Your task to perform on an android device: open the mobile data screen to see how much data has been used Image 0: 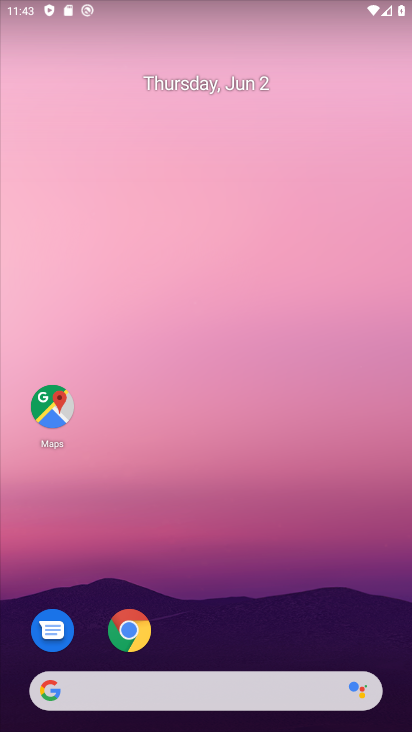
Step 0: drag from (147, 678) to (278, 84)
Your task to perform on an android device: open the mobile data screen to see how much data has been used Image 1: 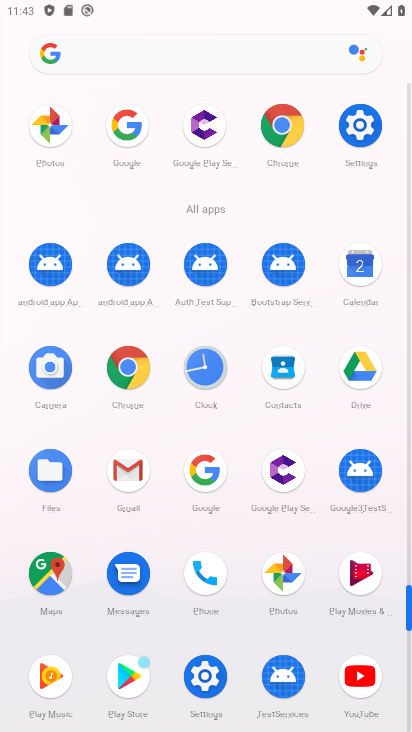
Step 1: drag from (216, 590) to (264, 382)
Your task to perform on an android device: open the mobile data screen to see how much data has been used Image 2: 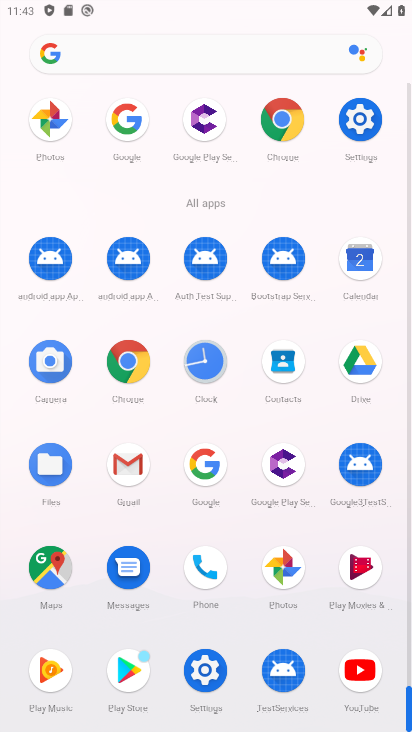
Step 2: click (201, 684)
Your task to perform on an android device: open the mobile data screen to see how much data has been used Image 3: 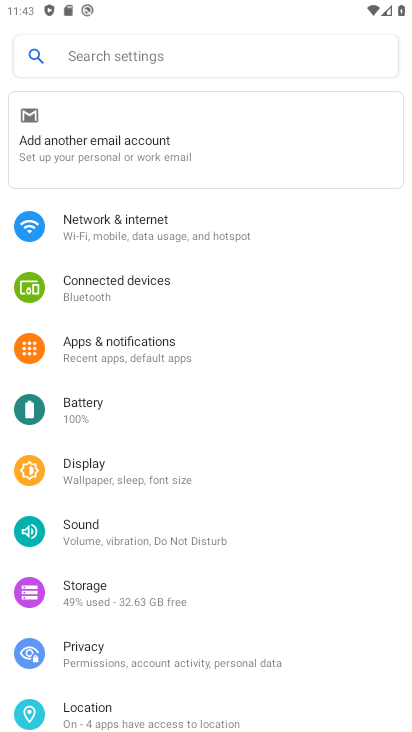
Step 3: click (214, 229)
Your task to perform on an android device: open the mobile data screen to see how much data has been used Image 4: 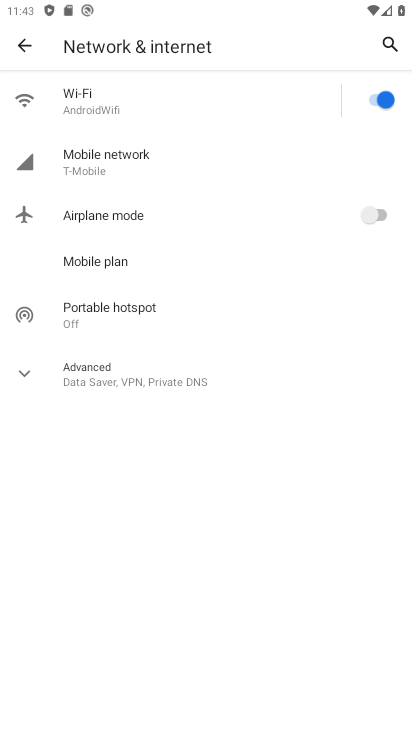
Step 4: click (154, 163)
Your task to perform on an android device: open the mobile data screen to see how much data has been used Image 5: 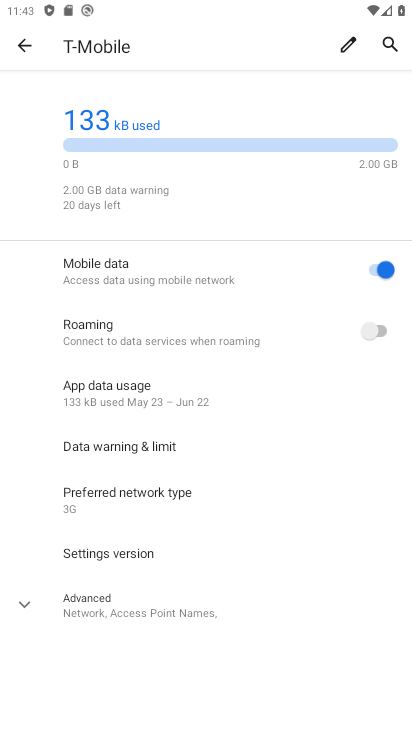
Step 5: click (237, 196)
Your task to perform on an android device: open the mobile data screen to see how much data has been used Image 6: 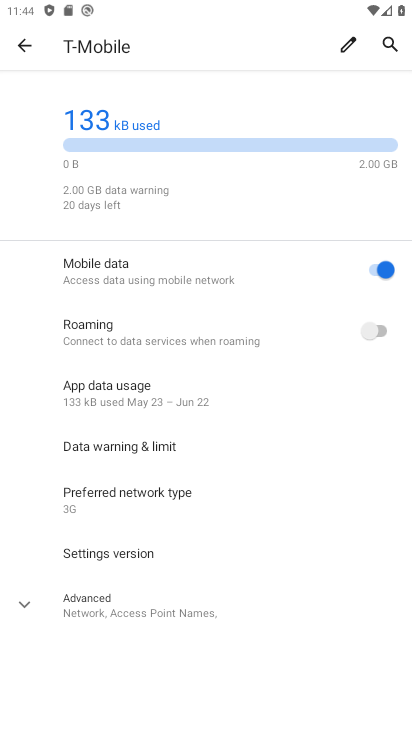
Step 6: task complete